Your task to perform on an android device: Go to eBay Image 0: 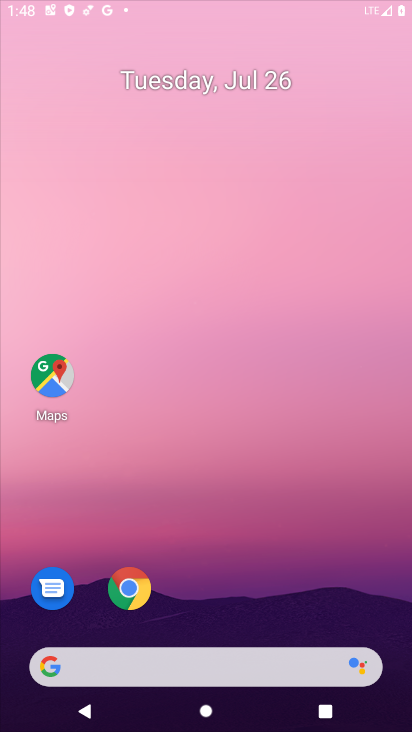
Step 0: drag from (238, 658) to (166, 72)
Your task to perform on an android device: Go to eBay Image 1: 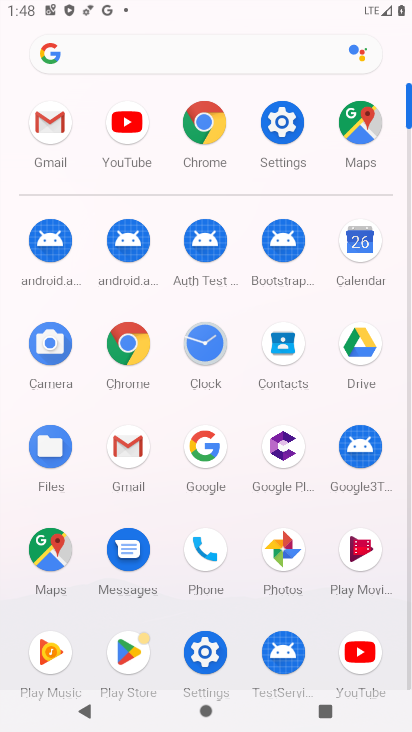
Step 1: click (204, 440)
Your task to perform on an android device: Go to eBay Image 2: 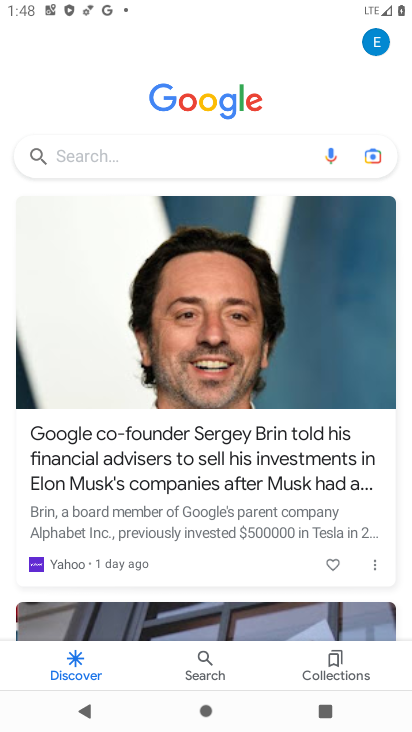
Step 2: click (133, 172)
Your task to perform on an android device: Go to eBay Image 3: 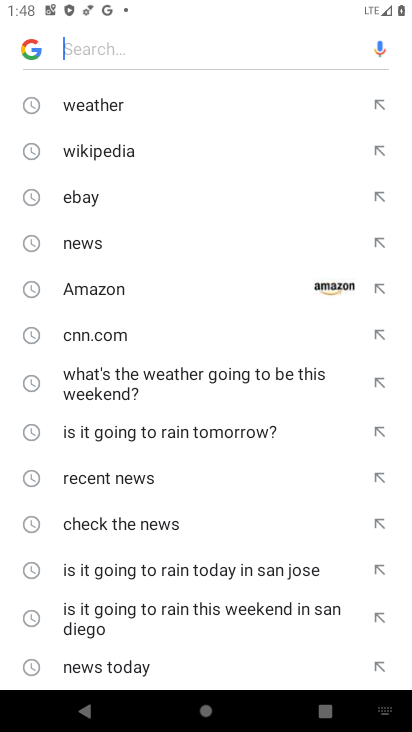
Step 3: click (94, 190)
Your task to perform on an android device: Go to eBay Image 4: 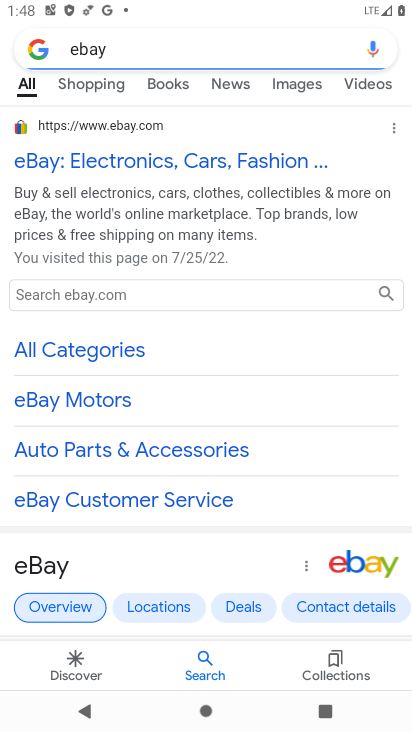
Step 4: task complete